Your task to perform on an android device: check out phone information Image 0: 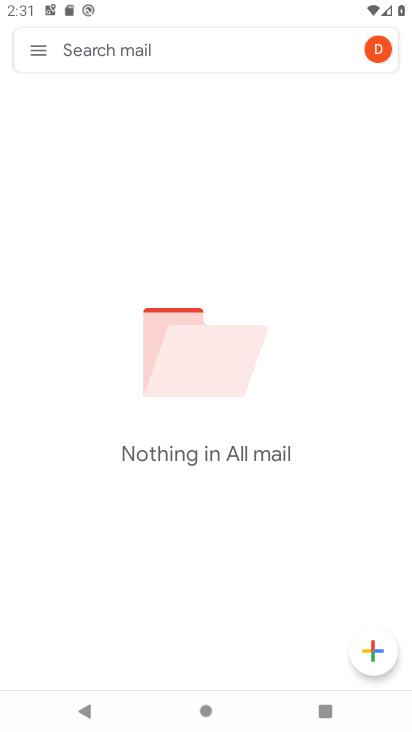
Step 0: press home button
Your task to perform on an android device: check out phone information Image 1: 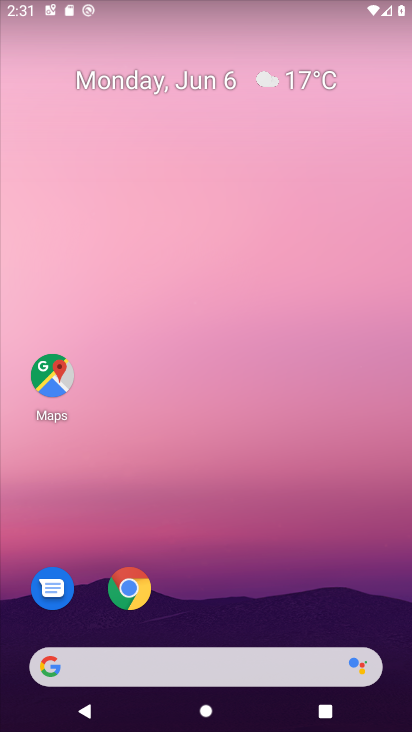
Step 1: drag from (258, 708) to (250, 11)
Your task to perform on an android device: check out phone information Image 2: 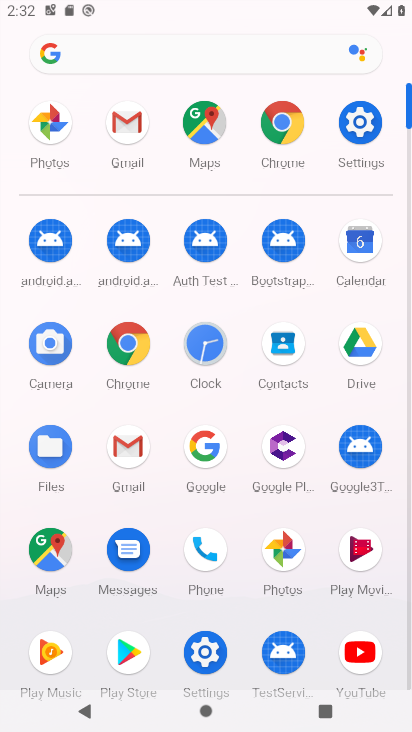
Step 2: click (355, 132)
Your task to perform on an android device: check out phone information Image 3: 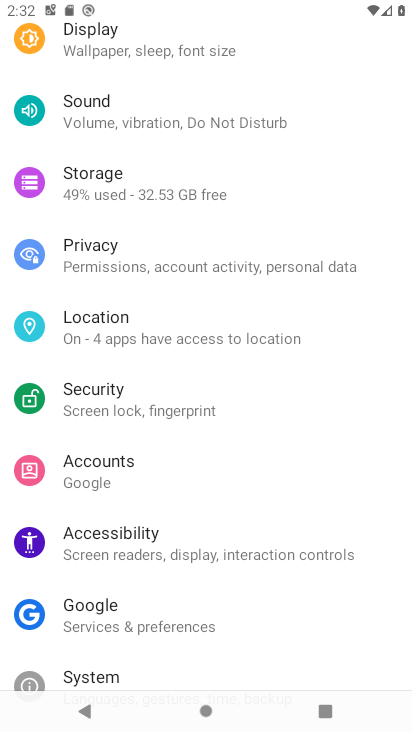
Step 3: drag from (243, 502) to (323, 38)
Your task to perform on an android device: check out phone information Image 4: 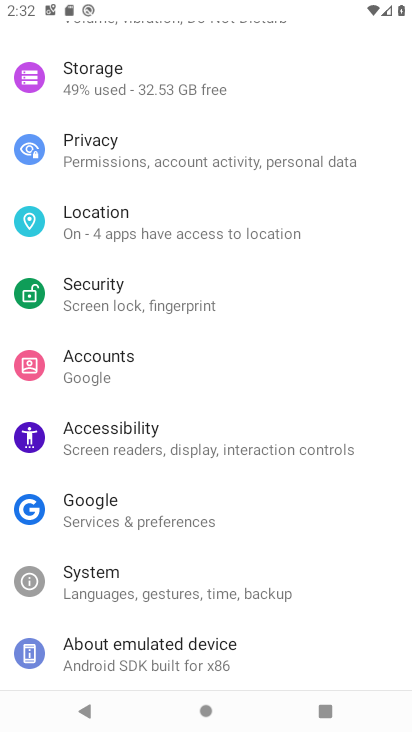
Step 4: drag from (210, 599) to (301, 193)
Your task to perform on an android device: check out phone information Image 5: 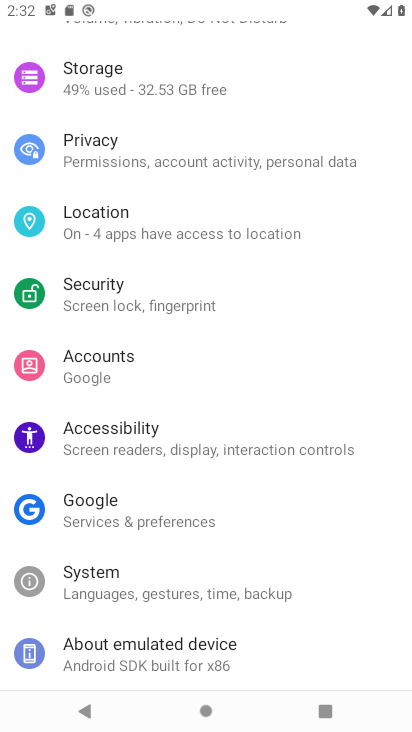
Step 5: click (258, 644)
Your task to perform on an android device: check out phone information Image 6: 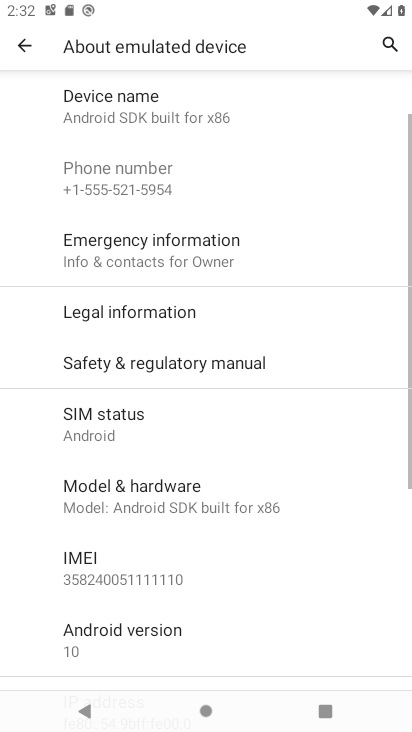
Step 6: task complete